Your task to perform on an android device: What's the weather? Image 0: 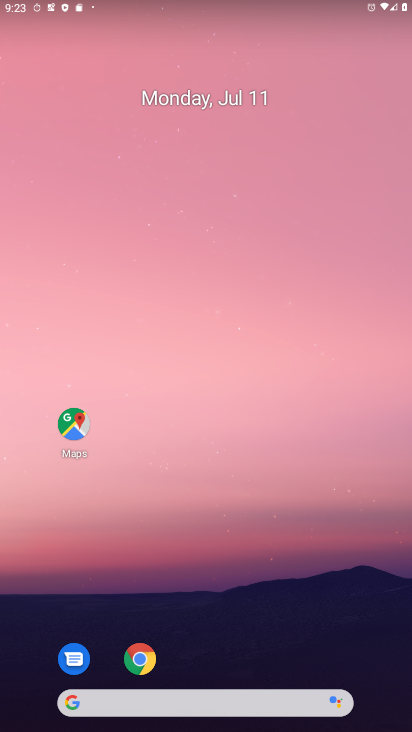
Step 0: drag from (228, 635) to (331, 89)
Your task to perform on an android device: What's the weather? Image 1: 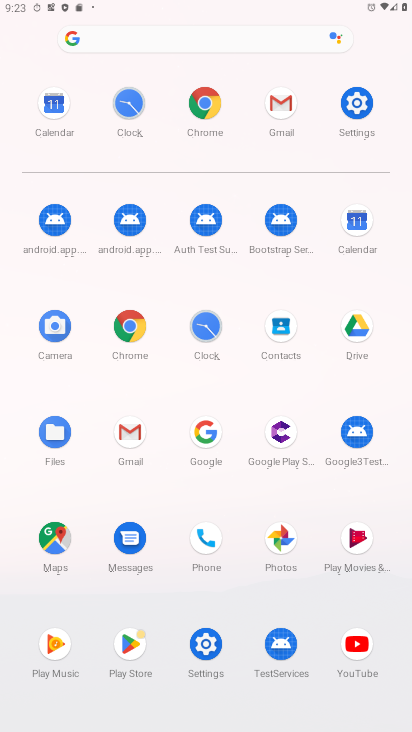
Step 1: click (245, 29)
Your task to perform on an android device: What's the weather? Image 2: 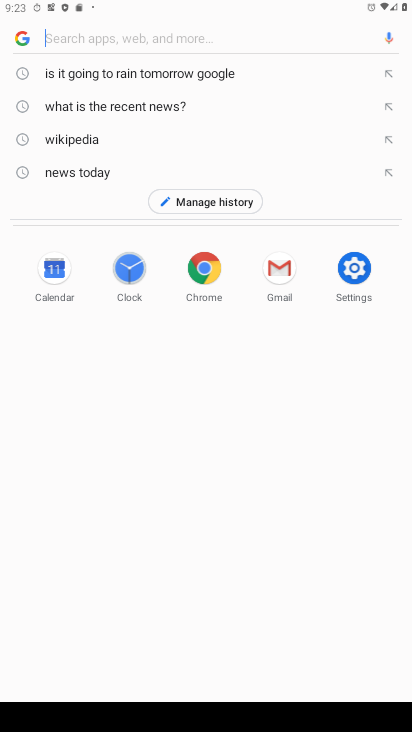
Step 2: type "What's the weather?"
Your task to perform on an android device: What's the weather? Image 3: 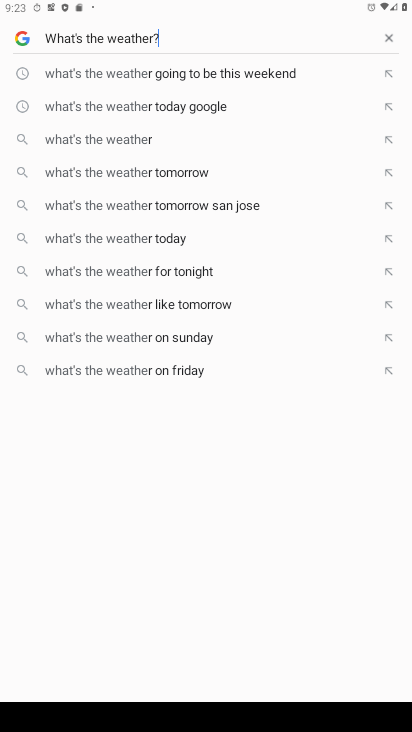
Step 3: type ""
Your task to perform on an android device: What's the weather? Image 4: 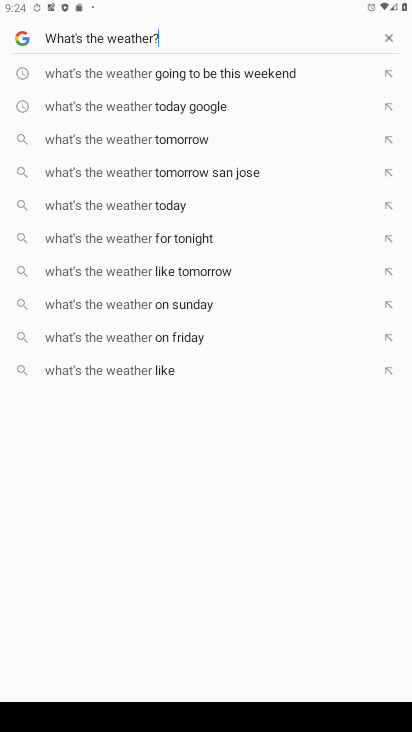
Step 4: drag from (218, 512) to (304, 193)
Your task to perform on an android device: What's the weather? Image 5: 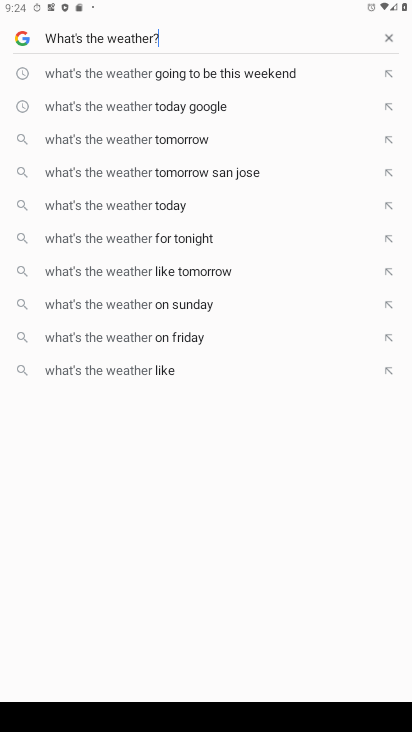
Step 5: click (142, 105)
Your task to perform on an android device: What's the weather? Image 6: 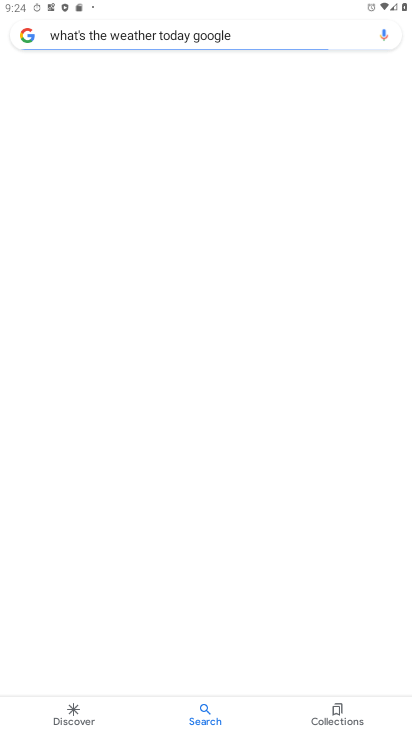
Step 6: task complete